Your task to perform on an android device: open a bookmark in the chrome app Image 0: 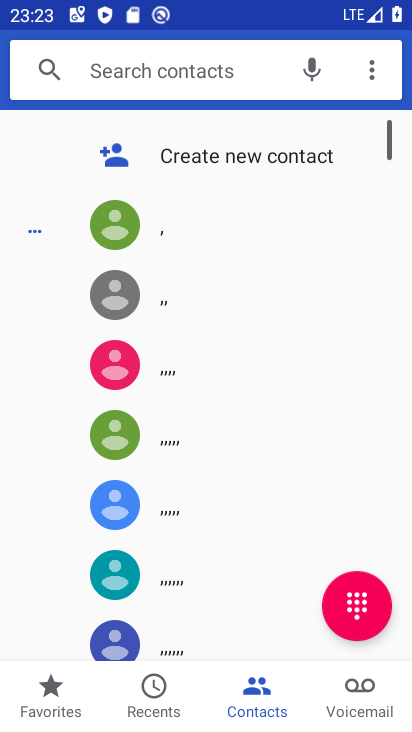
Step 0: press home button
Your task to perform on an android device: open a bookmark in the chrome app Image 1: 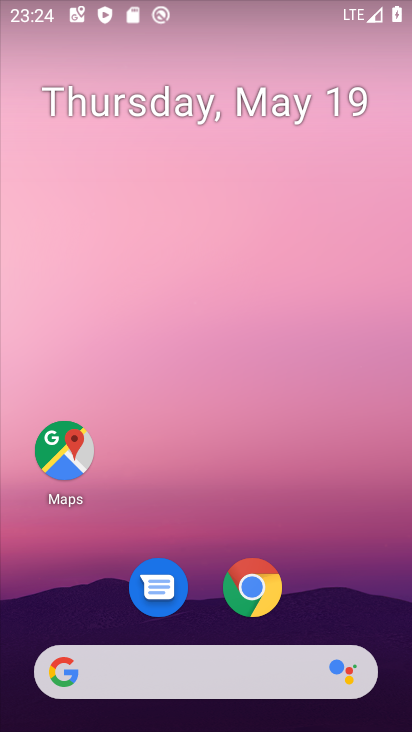
Step 1: drag from (247, 693) to (265, 322)
Your task to perform on an android device: open a bookmark in the chrome app Image 2: 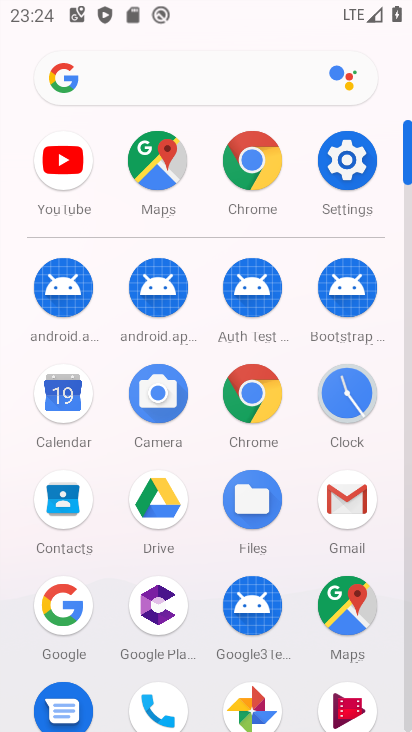
Step 2: click (264, 188)
Your task to perform on an android device: open a bookmark in the chrome app Image 3: 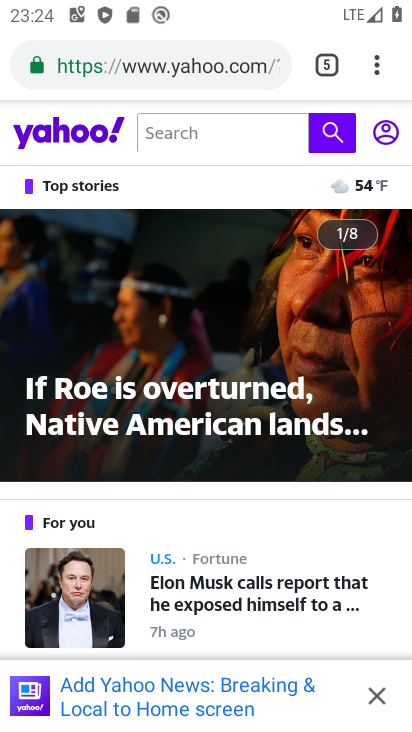
Step 3: click (371, 81)
Your task to perform on an android device: open a bookmark in the chrome app Image 4: 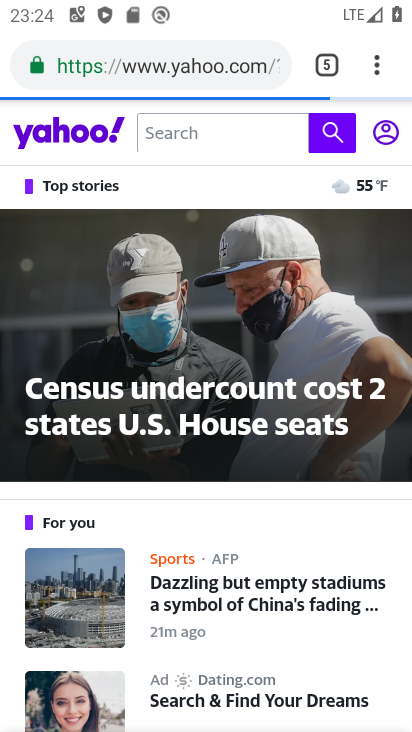
Step 4: click (358, 80)
Your task to perform on an android device: open a bookmark in the chrome app Image 5: 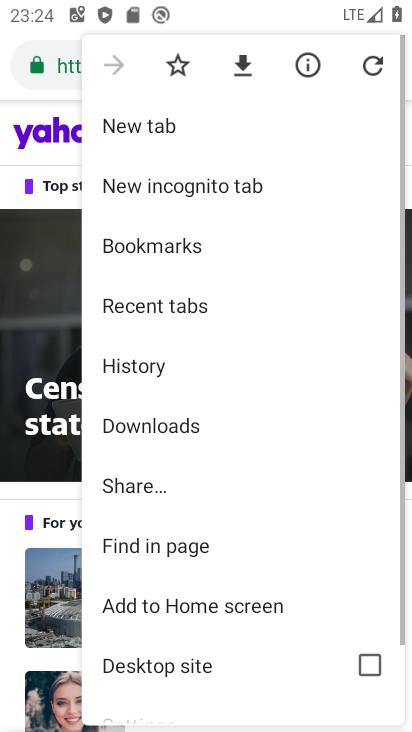
Step 5: click (158, 258)
Your task to perform on an android device: open a bookmark in the chrome app Image 6: 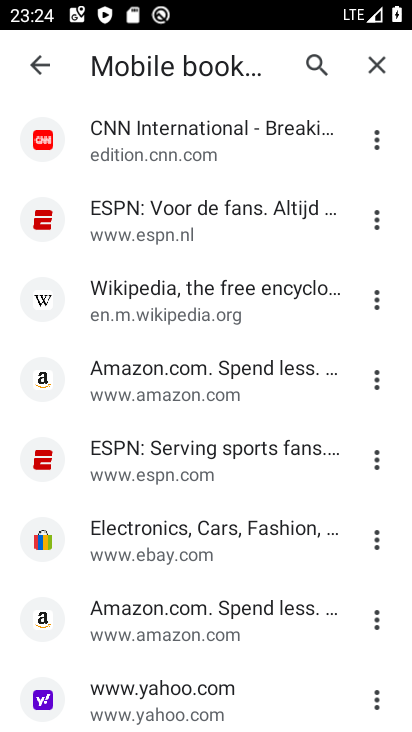
Step 6: click (175, 388)
Your task to perform on an android device: open a bookmark in the chrome app Image 7: 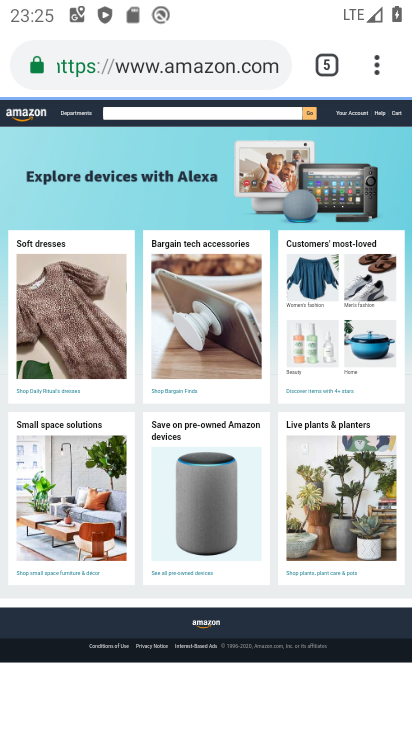
Step 7: task complete